Your task to perform on an android device: Show me popular games on the Play Store Image 0: 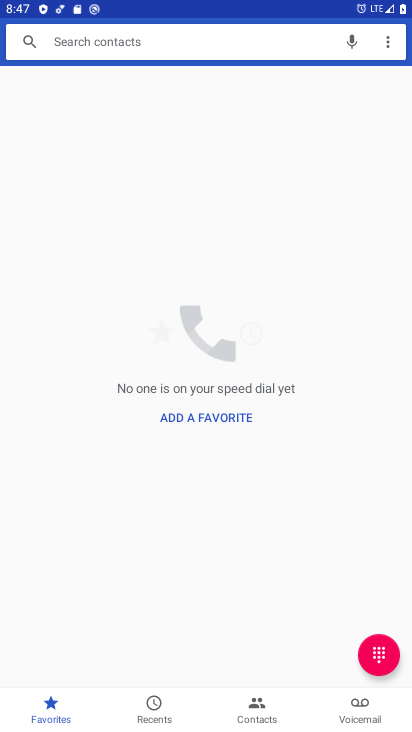
Step 0: press home button
Your task to perform on an android device: Show me popular games on the Play Store Image 1: 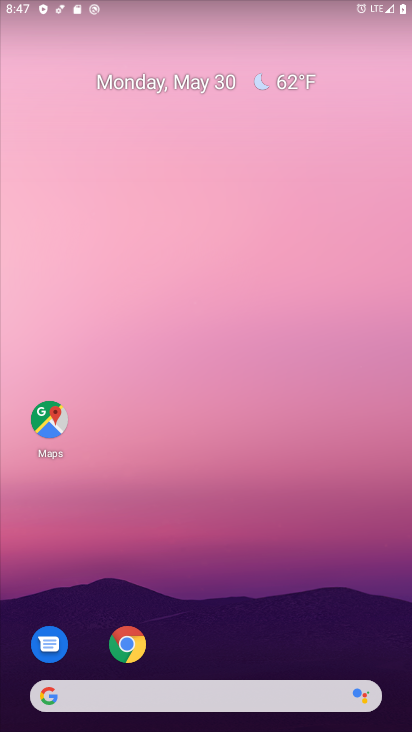
Step 1: drag from (377, 637) to (305, 126)
Your task to perform on an android device: Show me popular games on the Play Store Image 2: 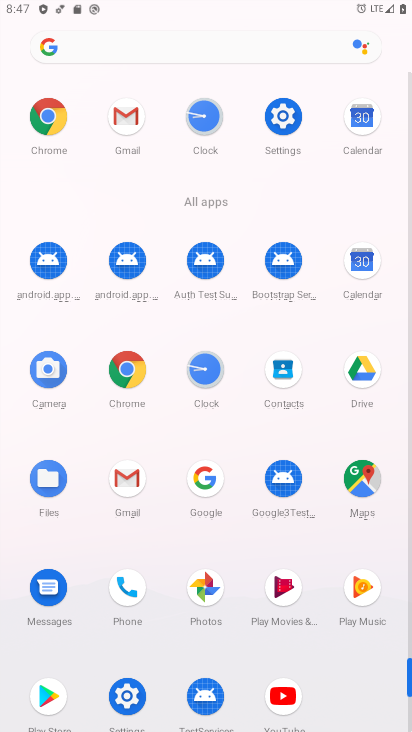
Step 2: click (48, 690)
Your task to perform on an android device: Show me popular games on the Play Store Image 3: 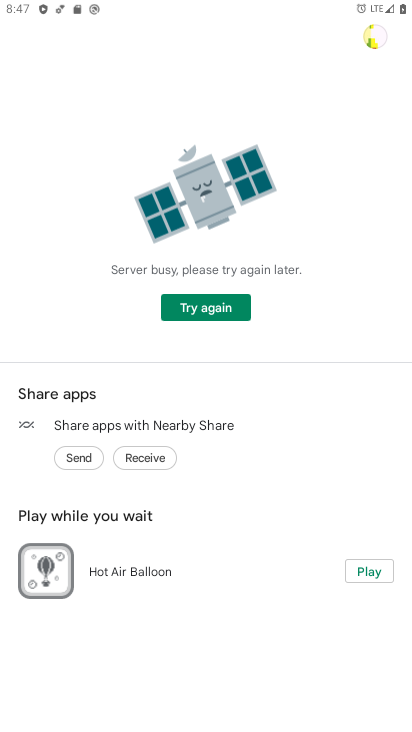
Step 3: click (207, 305)
Your task to perform on an android device: Show me popular games on the Play Store Image 4: 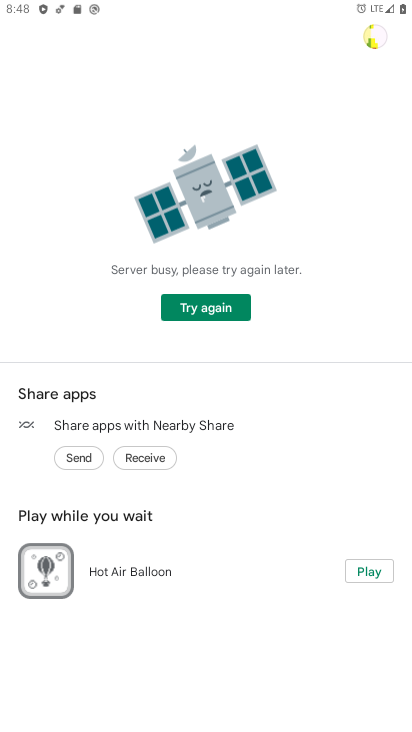
Step 4: task complete